Your task to perform on an android device: Go to internet settings Image 0: 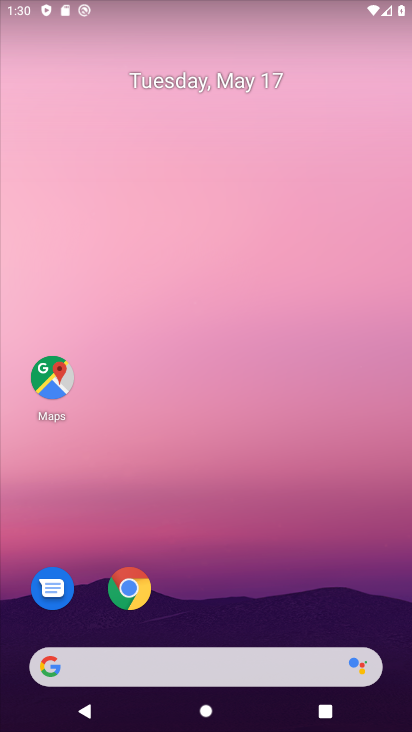
Step 0: drag from (202, 601) to (32, 117)
Your task to perform on an android device: Go to internet settings Image 1: 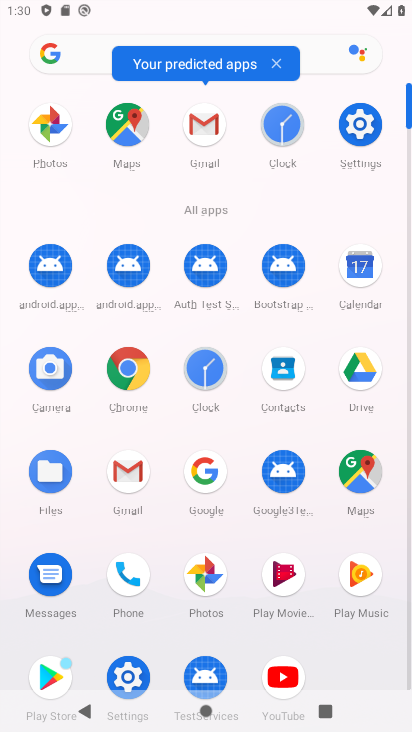
Step 1: click (364, 122)
Your task to perform on an android device: Go to internet settings Image 2: 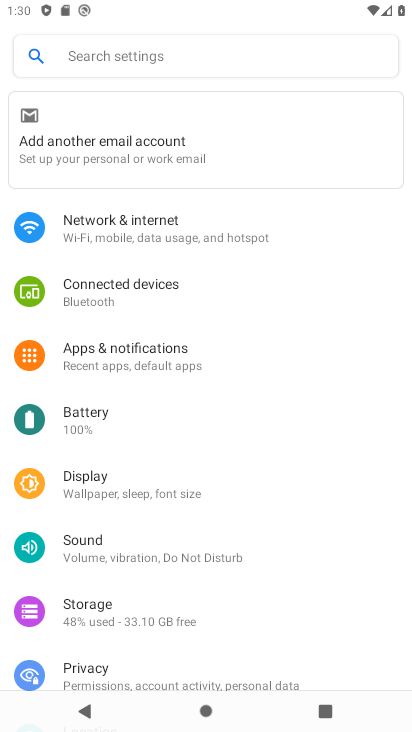
Step 2: click (135, 227)
Your task to perform on an android device: Go to internet settings Image 3: 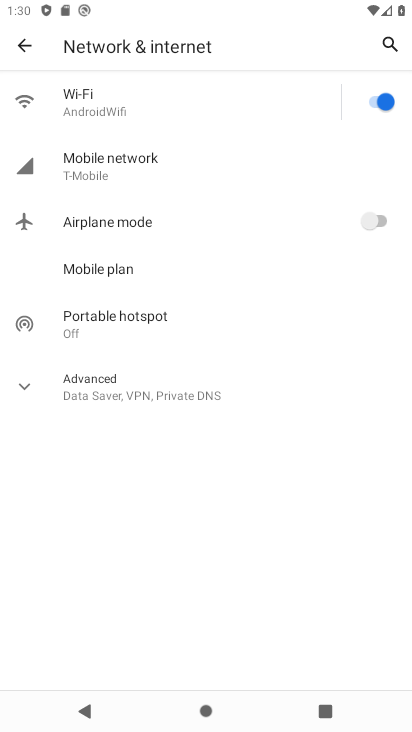
Step 3: task complete